Your task to perform on an android device: Turn off the flashlight Image 0: 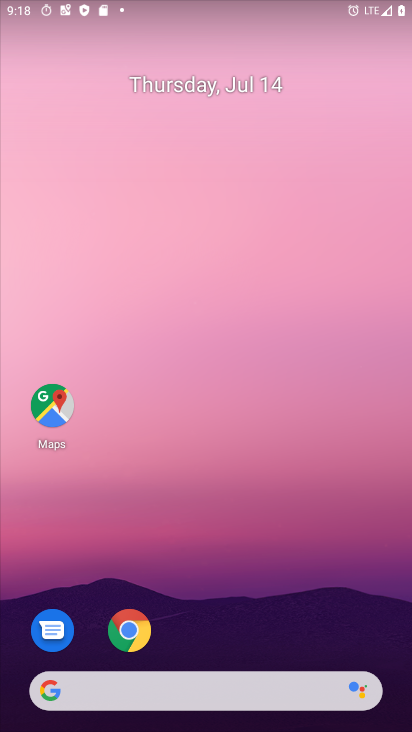
Step 0: drag from (220, 647) to (176, 148)
Your task to perform on an android device: Turn off the flashlight Image 1: 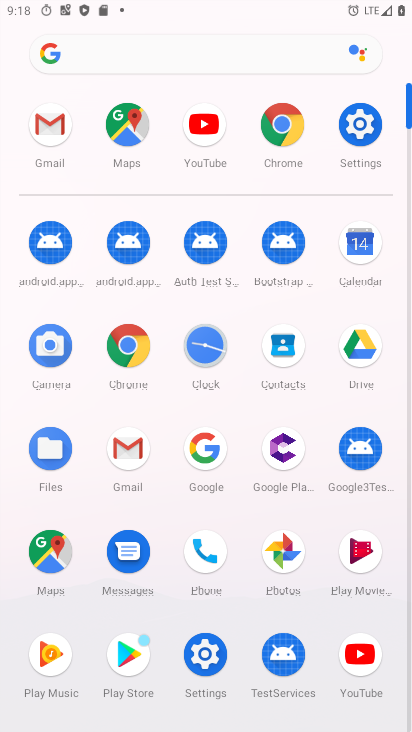
Step 1: click (355, 124)
Your task to perform on an android device: Turn off the flashlight Image 2: 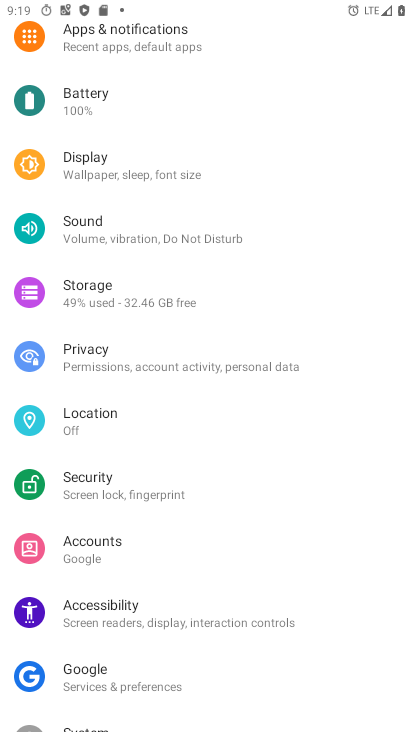
Step 2: task complete